Your task to perform on an android device: Go to Google Image 0: 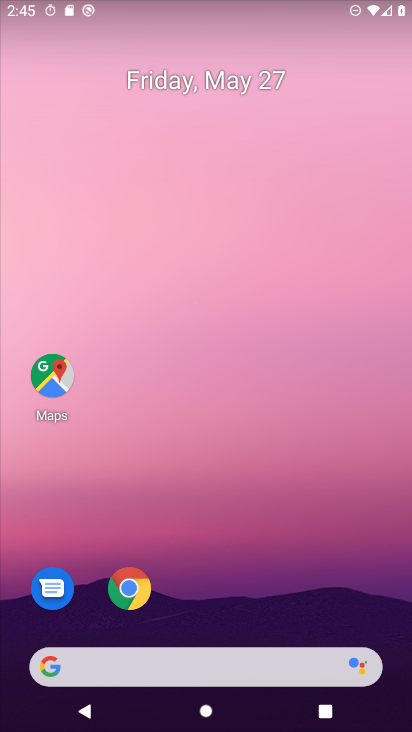
Step 0: drag from (257, 601) to (232, 14)
Your task to perform on an android device: Go to Google Image 1: 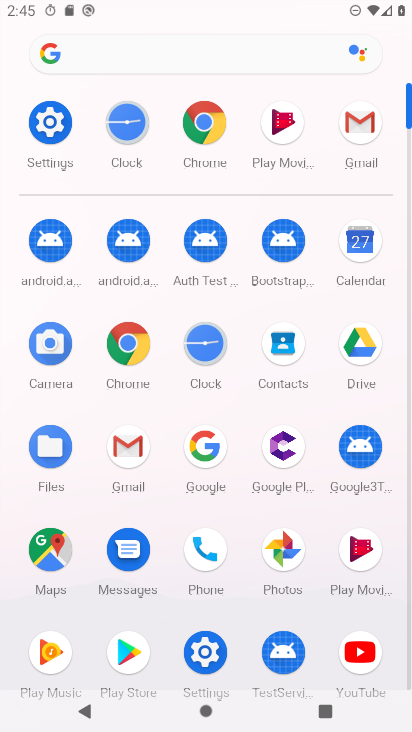
Step 1: click (211, 438)
Your task to perform on an android device: Go to Google Image 2: 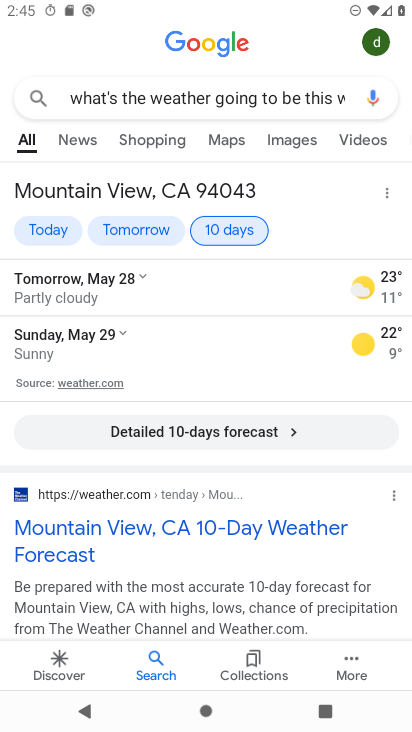
Step 2: task complete